Your task to perform on an android device: Open internet settings Image 0: 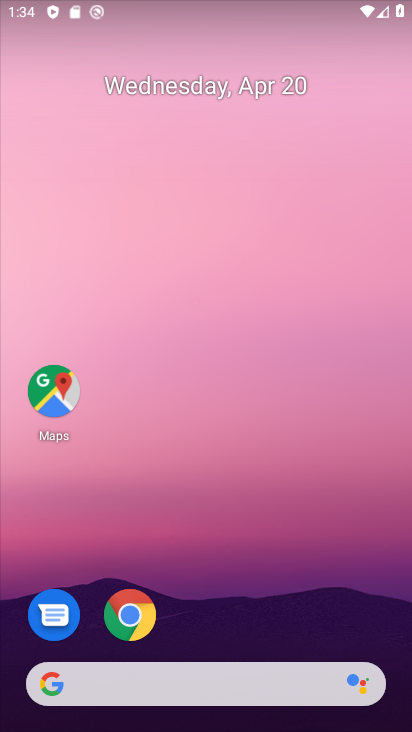
Step 0: drag from (292, 621) to (314, 92)
Your task to perform on an android device: Open internet settings Image 1: 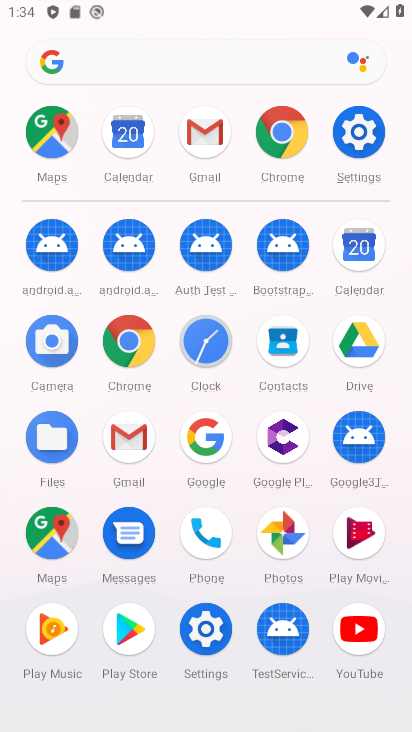
Step 1: click (374, 129)
Your task to perform on an android device: Open internet settings Image 2: 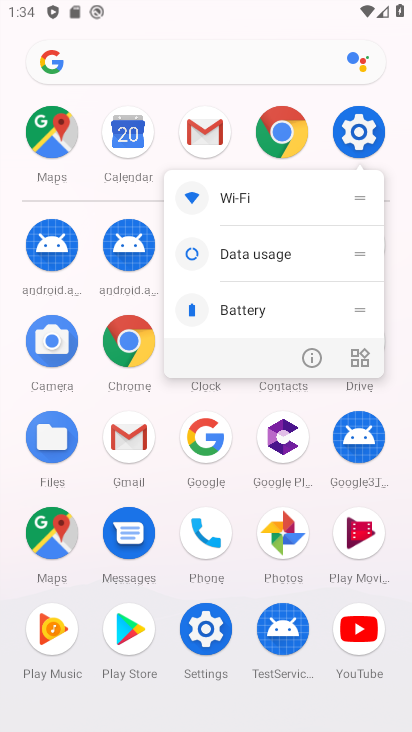
Step 2: click (374, 129)
Your task to perform on an android device: Open internet settings Image 3: 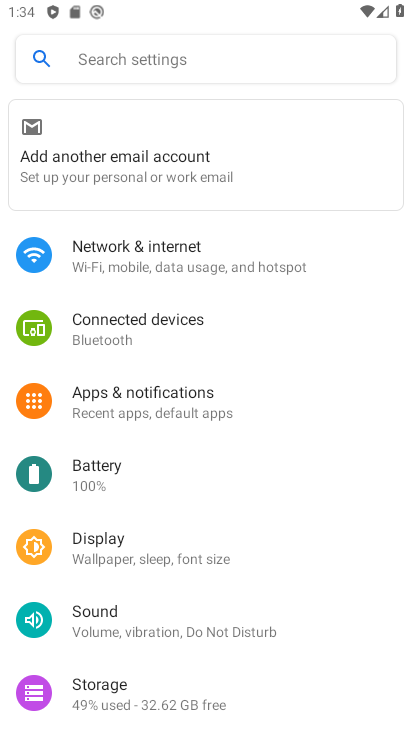
Step 3: click (223, 254)
Your task to perform on an android device: Open internet settings Image 4: 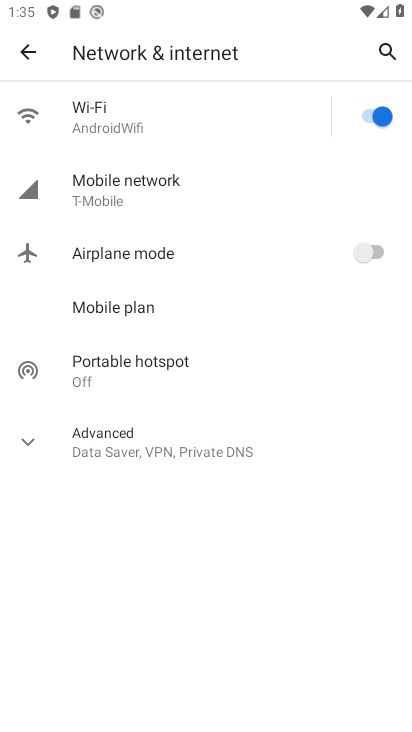
Step 4: click (207, 195)
Your task to perform on an android device: Open internet settings Image 5: 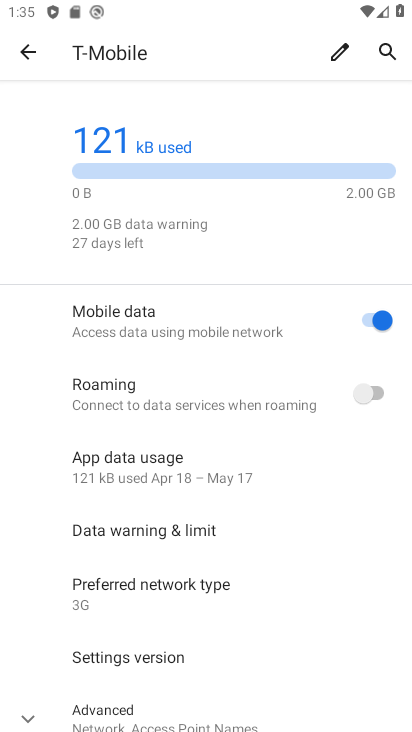
Step 5: task complete